Your task to perform on an android device: Add usb-c to the cart on walmart.com Image 0: 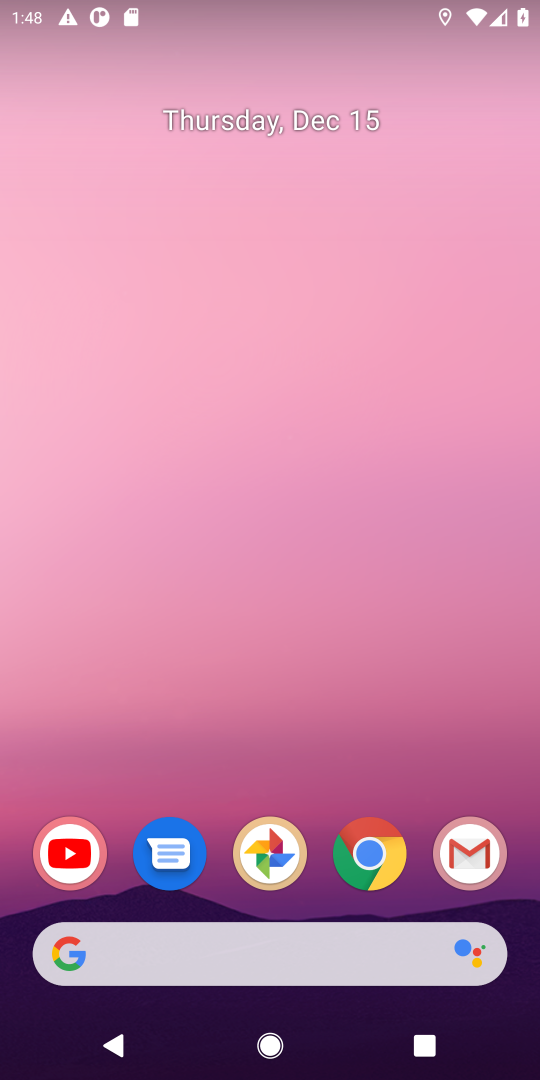
Step 0: drag from (274, 947) to (274, 177)
Your task to perform on an android device: Add usb-c to the cart on walmart.com Image 1: 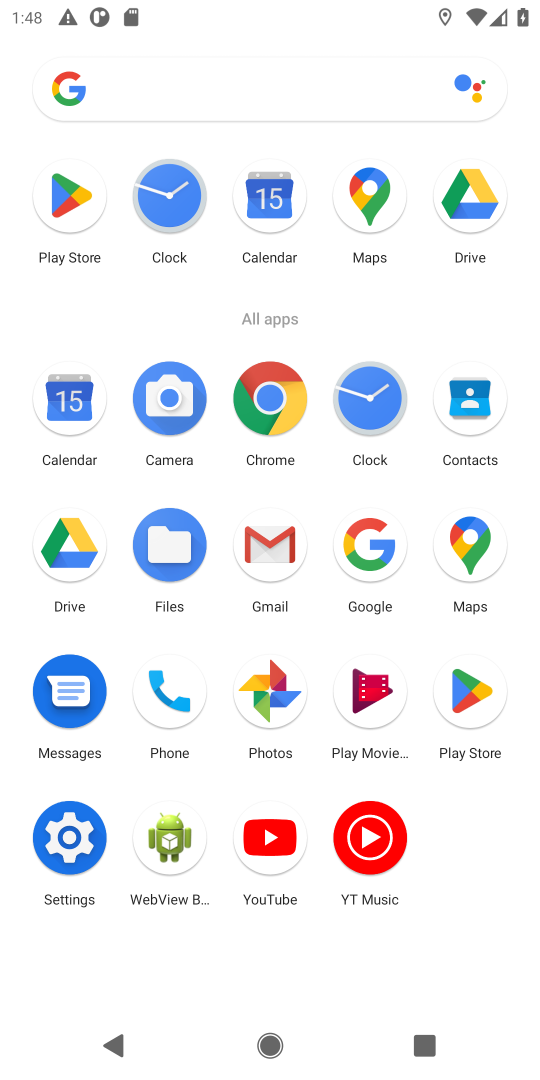
Step 1: click (370, 555)
Your task to perform on an android device: Add usb-c to the cart on walmart.com Image 2: 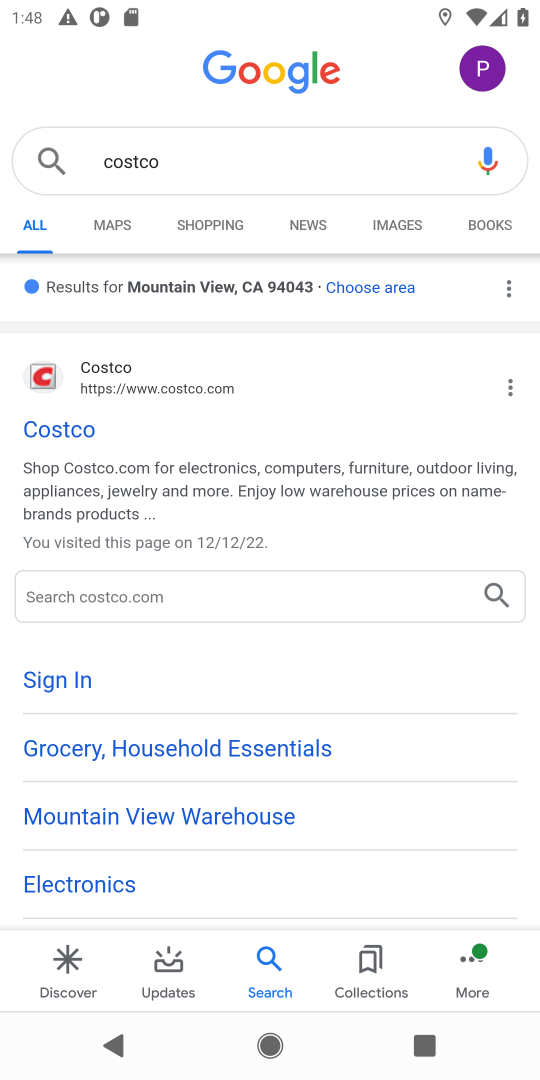
Step 2: click (109, 158)
Your task to perform on an android device: Add usb-c to the cart on walmart.com Image 3: 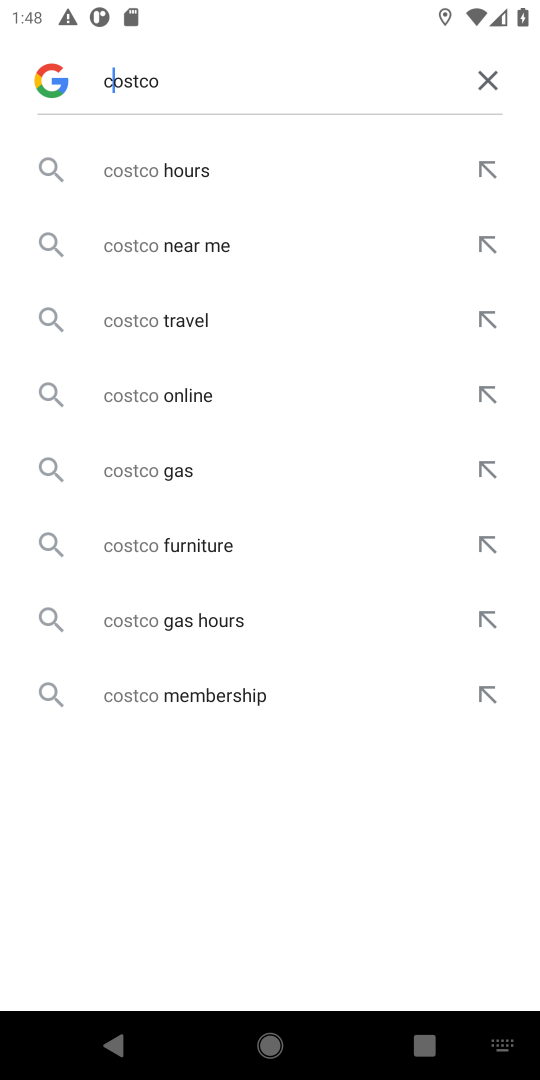
Step 3: click (500, 84)
Your task to perform on an android device: Add usb-c to the cart on walmart.com Image 4: 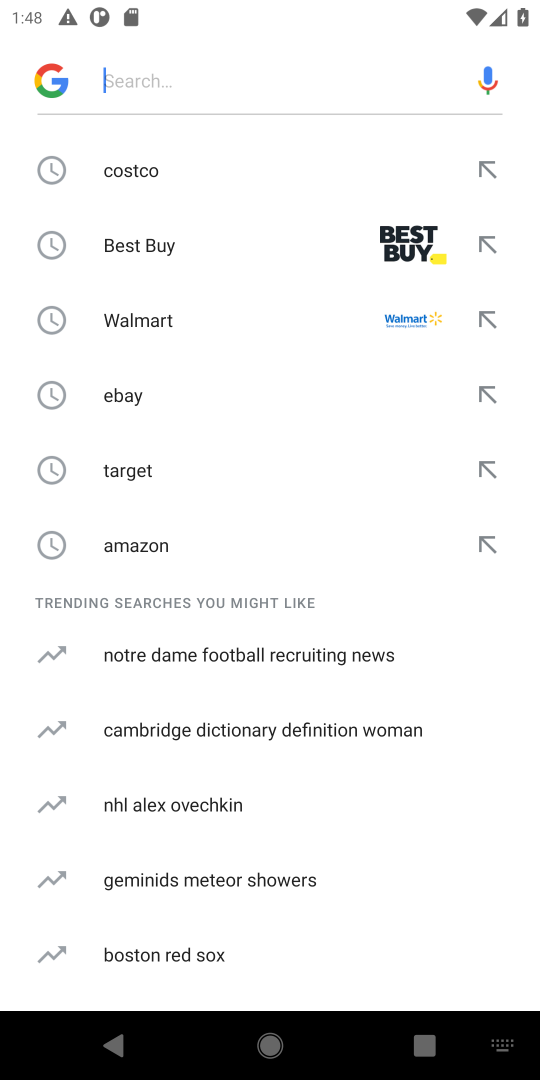
Step 4: click (130, 311)
Your task to perform on an android device: Add usb-c to the cart on walmart.com Image 5: 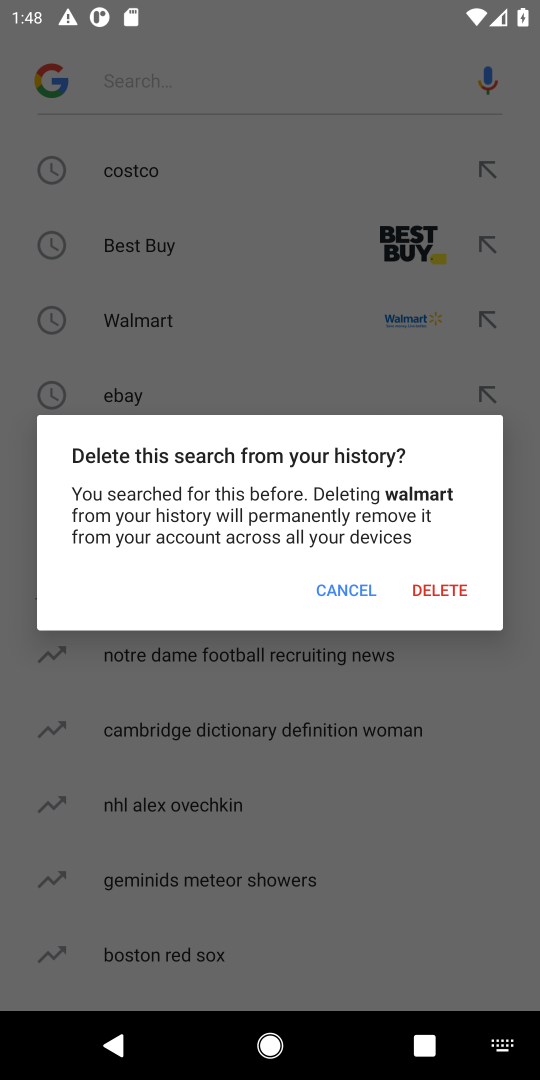
Step 5: click (358, 586)
Your task to perform on an android device: Add usb-c to the cart on walmart.com Image 6: 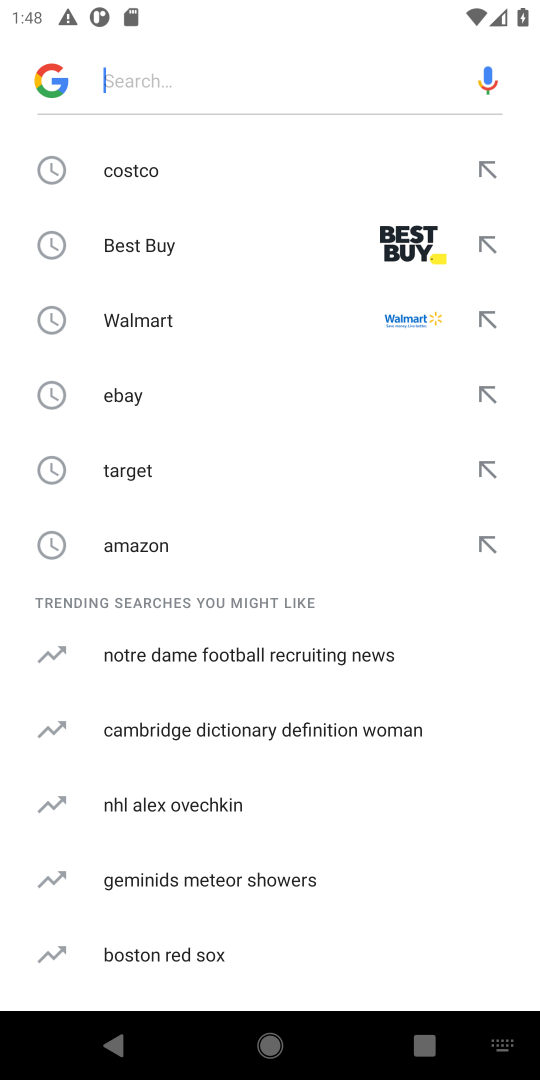
Step 6: click (404, 326)
Your task to perform on an android device: Add usb-c to the cart on walmart.com Image 7: 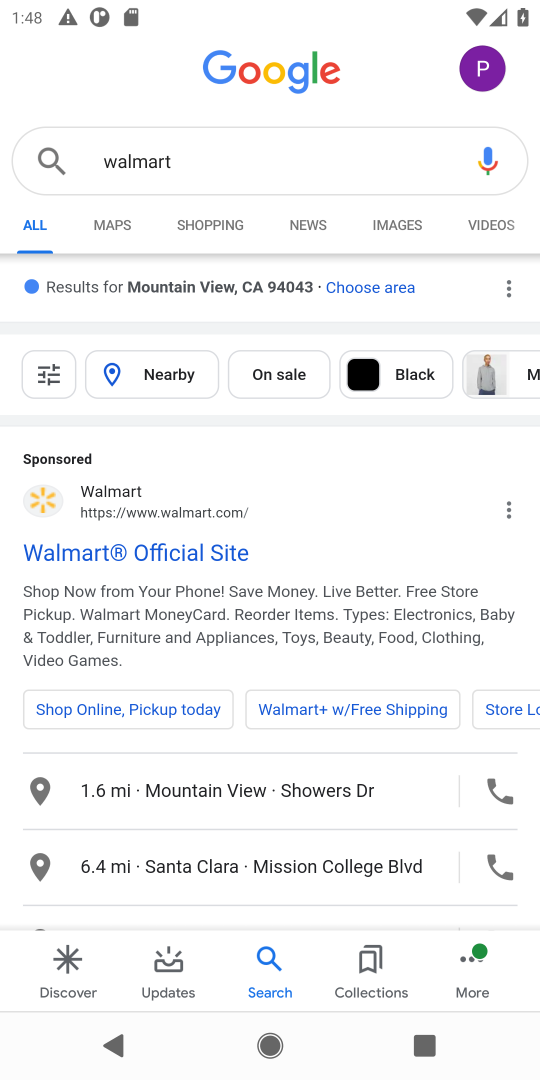
Step 7: click (153, 549)
Your task to perform on an android device: Add usb-c to the cart on walmart.com Image 8: 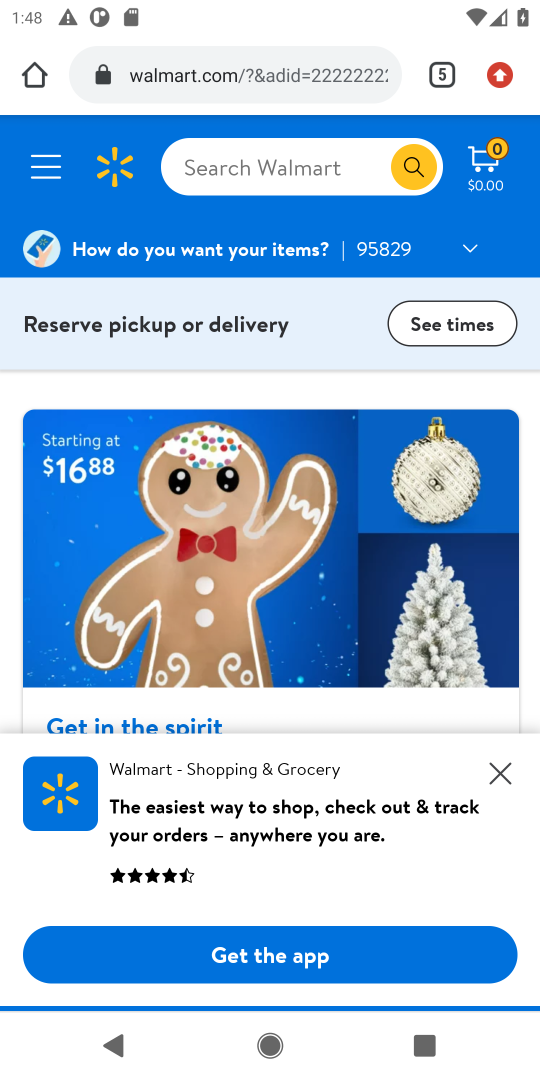
Step 8: click (255, 154)
Your task to perform on an android device: Add usb-c to the cart on walmart.com Image 9: 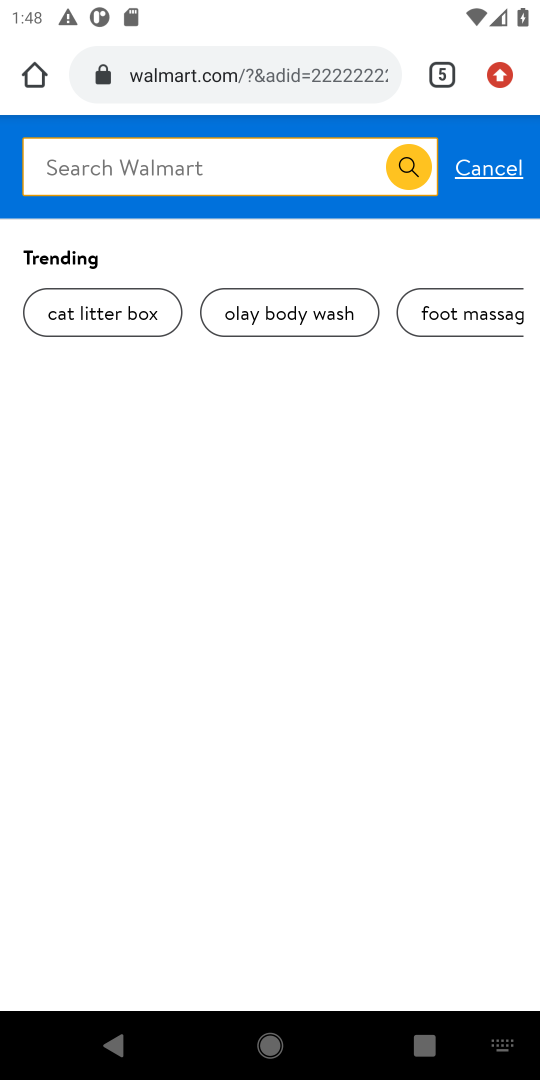
Step 9: type "usb-c "
Your task to perform on an android device: Add usb-c to the cart on walmart.com Image 10: 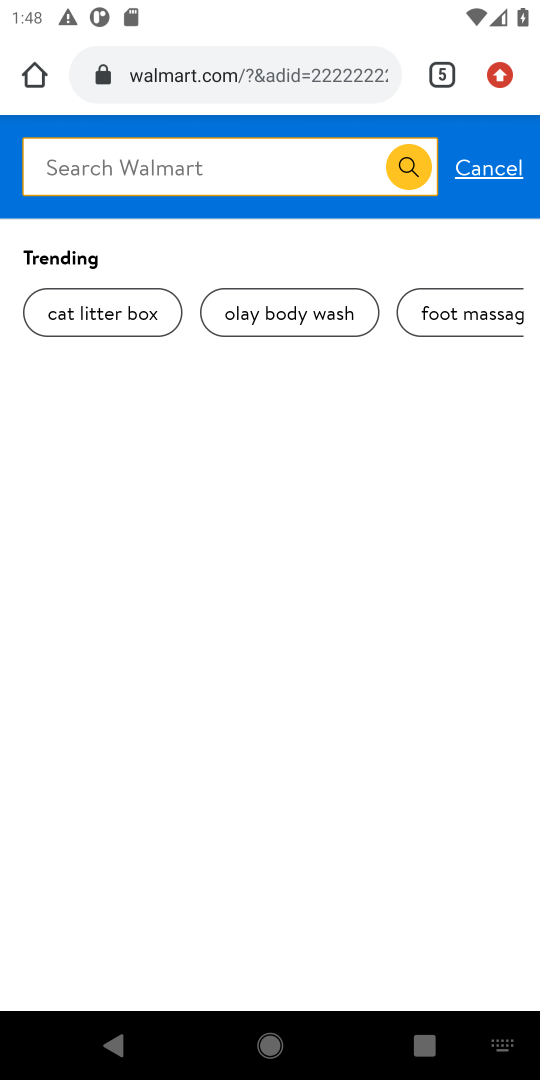
Step 10: click (408, 165)
Your task to perform on an android device: Add usb-c to the cart on walmart.com Image 11: 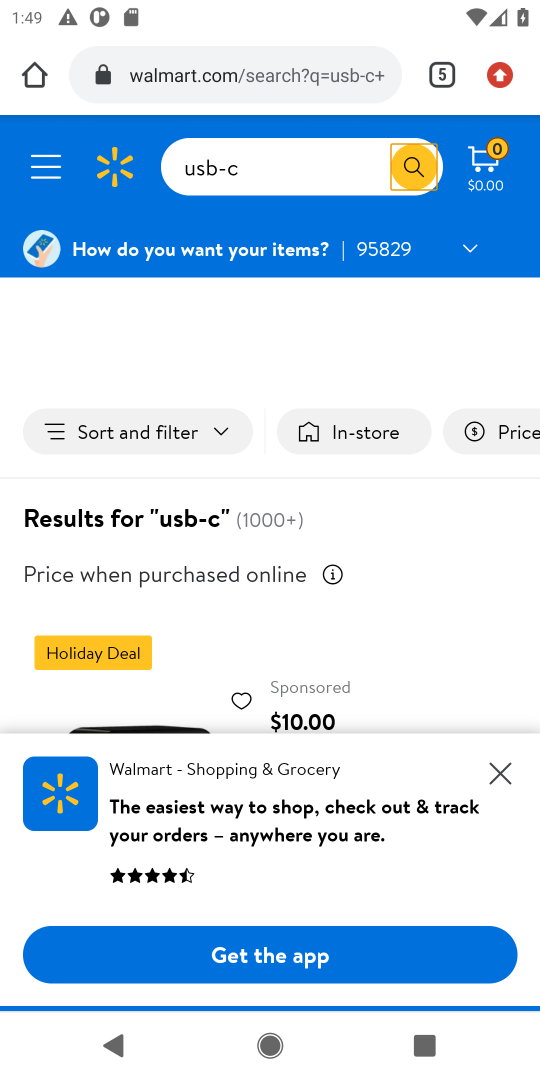
Step 11: click (501, 770)
Your task to perform on an android device: Add usb-c to the cart on walmart.com Image 12: 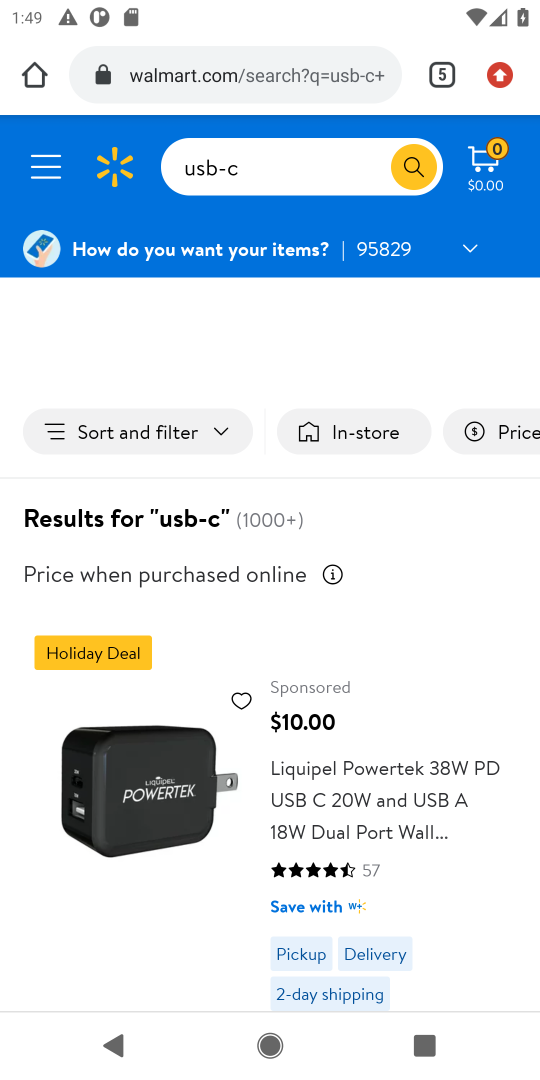
Step 12: drag from (428, 942) to (380, 483)
Your task to perform on an android device: Add usb-c to the cart on walmart.com Image 13: 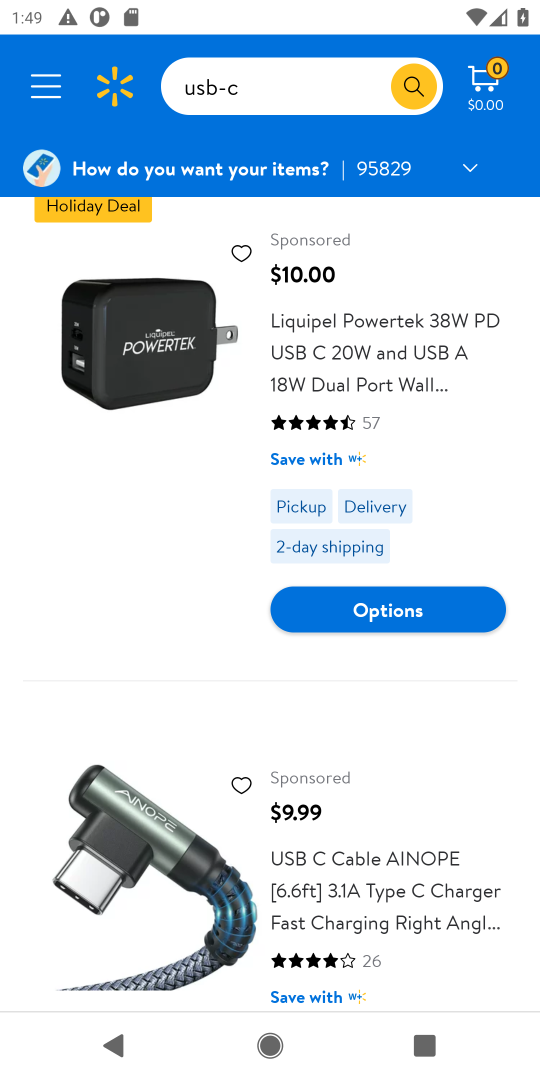
Step 13: click (414, 613)
Your task to perform on an android device: Add usb-c to the cart on walmart.com Image 14: 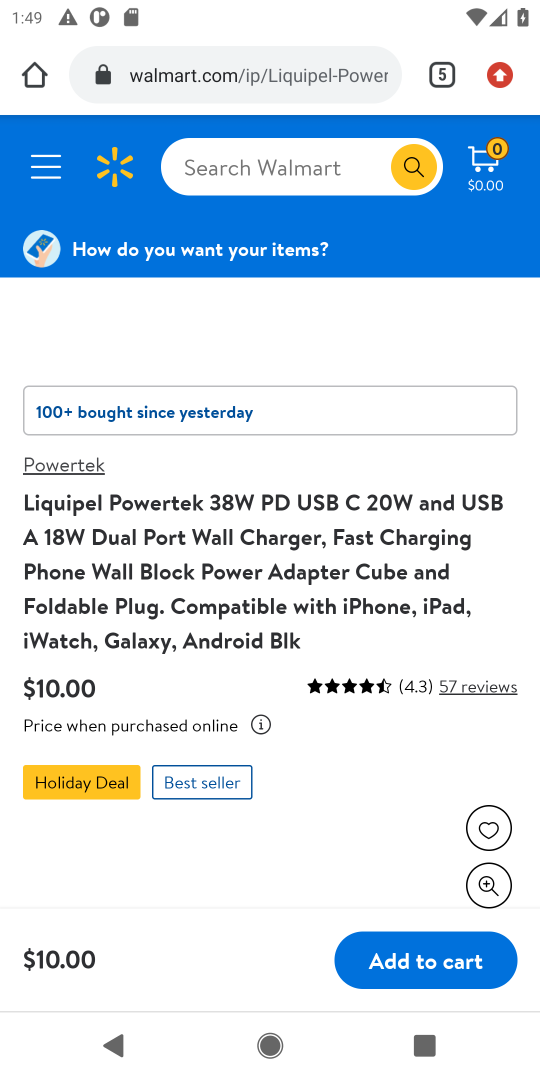
Step 14: click (441, 969)
Your task to perform on an android device: Add usb-c to the cart on walmart.com Image 15: 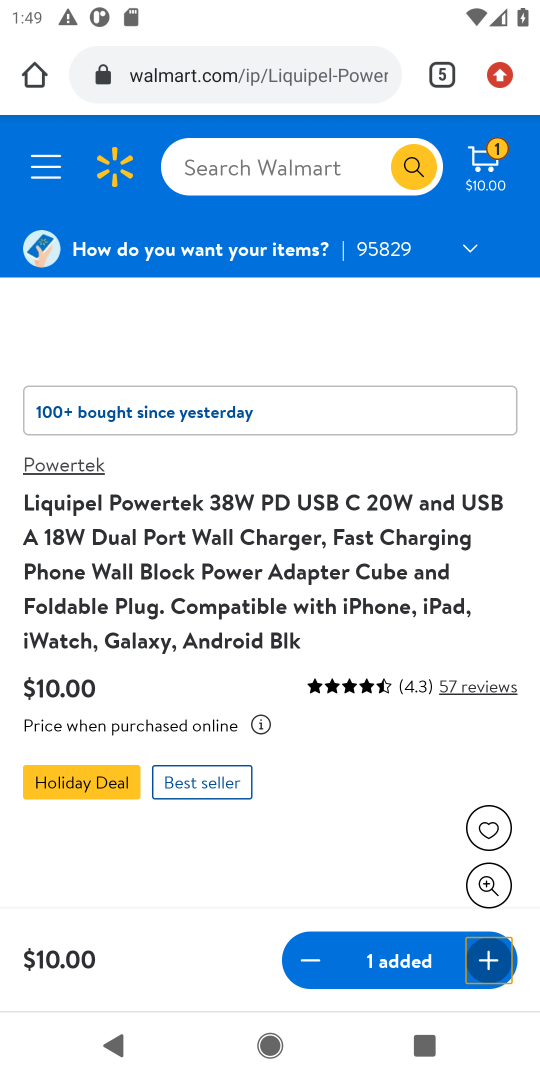
Step 15: task complete